Your task to perform on an android device: Open eBay Image 0: 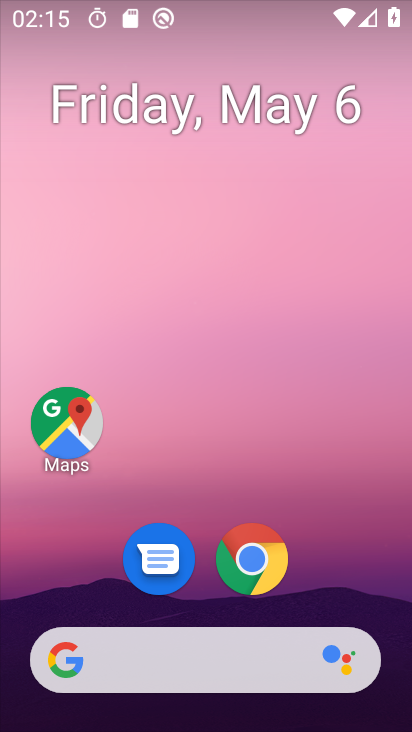
Step 0: drag from (348, 624) to (304, 6)
Your task to perform on an android device: Open eBay Image 1: 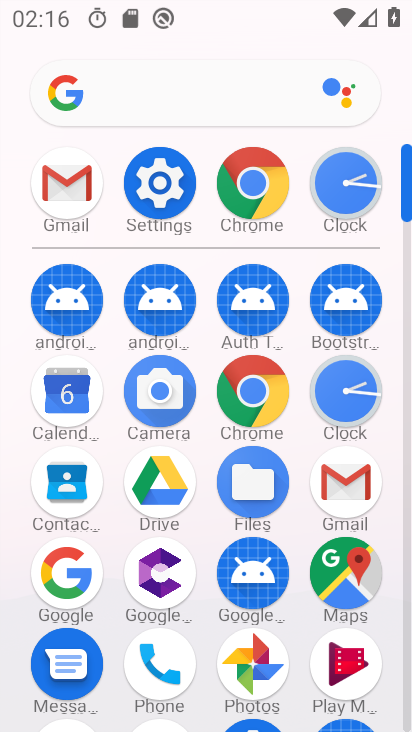
Step 1: click (260, 399)
Your task to perform on an android device: Open eBay Image 2: 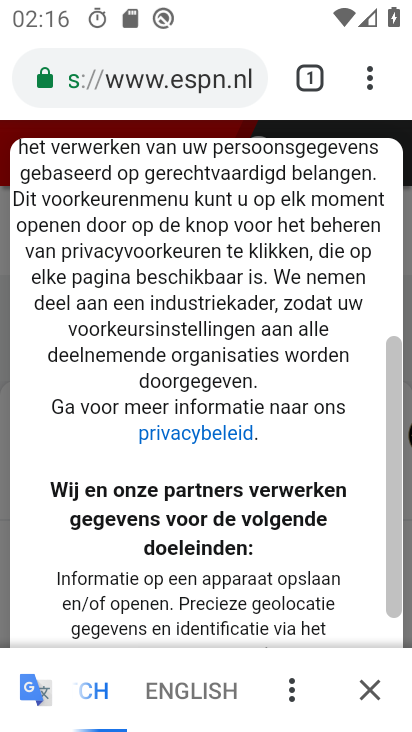
Step 2: click (239, 77)
Your task to perform on an android device: Open eBay Image 3: 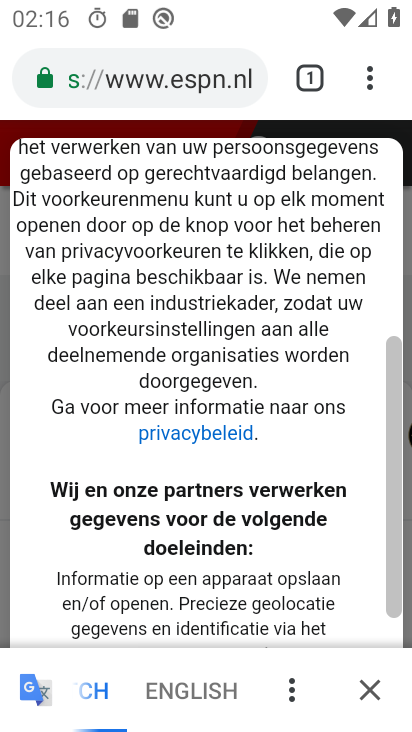
Step 3: click (239, 77)
Your task to perform on an android device: Open eBay Image 4: 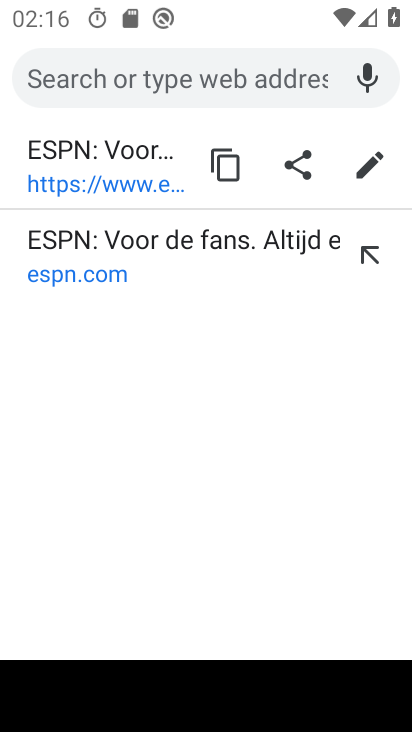
Step 4: type "ebay"
Your task to perform on an android device: Open eBay Image 5: 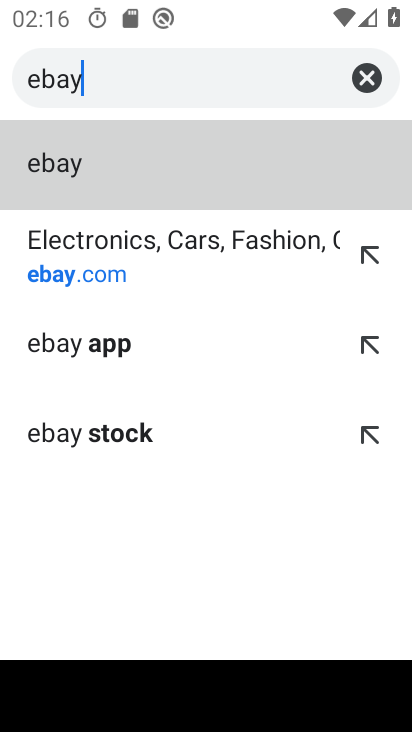
Step 5: click (239, 276)
Your task to perform on an android device: Open eBay Image 6: 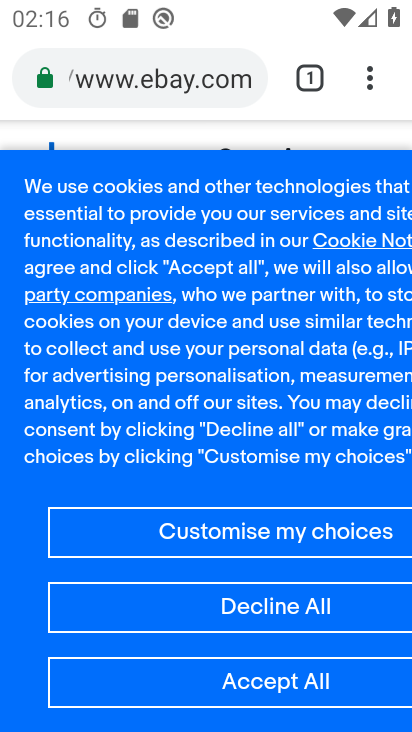
Step 6: task complete